Your task to perform on an android device: clear all cookies in the chrome app Image 0: 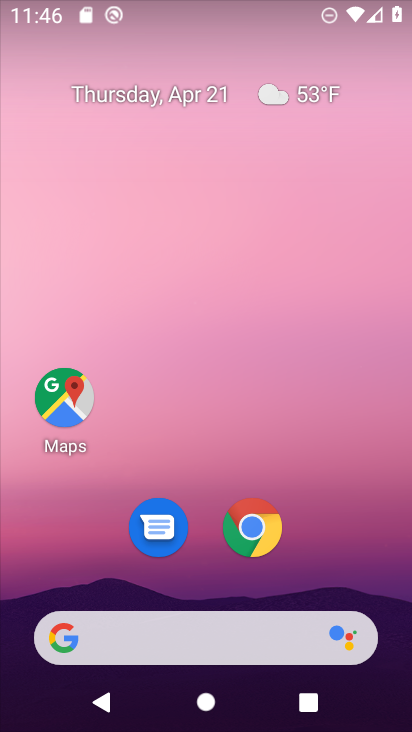
Step 0: drag from (352, 567) to (365, 253)
Your task to perform on an android device: clear all cookies in the chrome app Image 1: 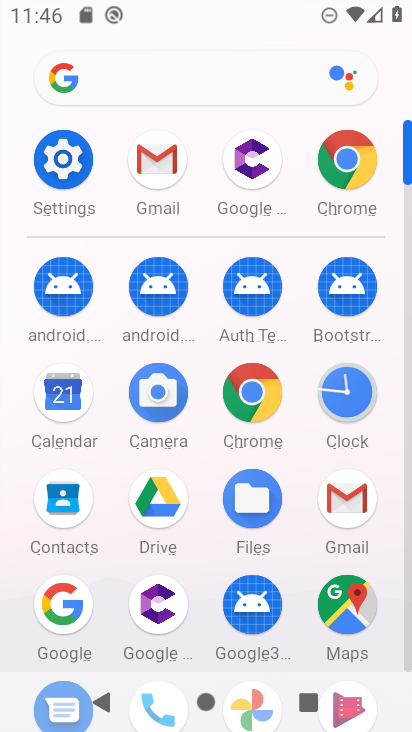
Step 1: click (339, 174)
Your task to perform on an android device: clear all cookies in the chrome app Image 2: 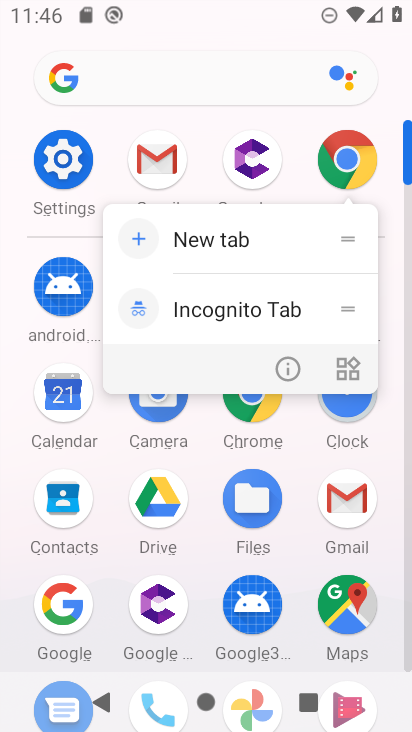
Step 2: click (341, 174)
Your task to perform on an android device: clear all cookies in the chrome app Image 3: 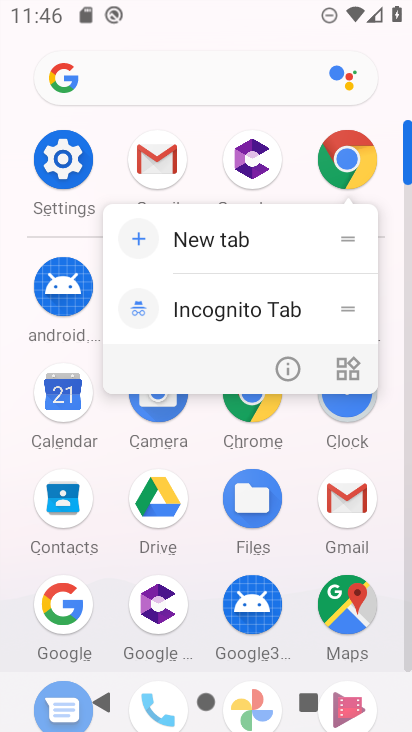
Step 3: click (340, 175)
Your task to perform on an android device: clear all cookies in the chrome app Image 4: 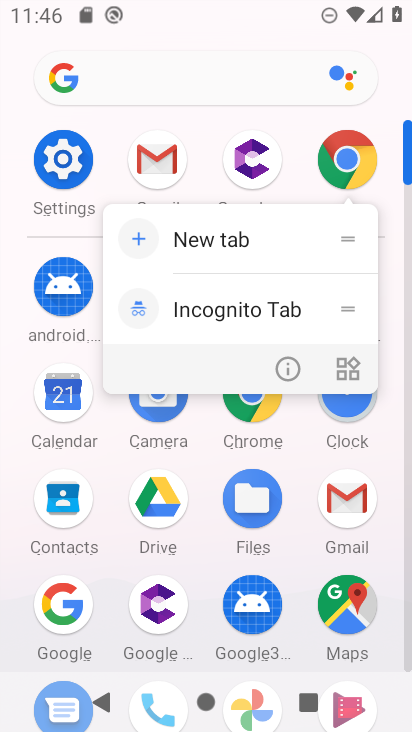
Step 4: click (357, 153)
Your task to perform on an android device: clear all cookies in the chrome app Image 5: 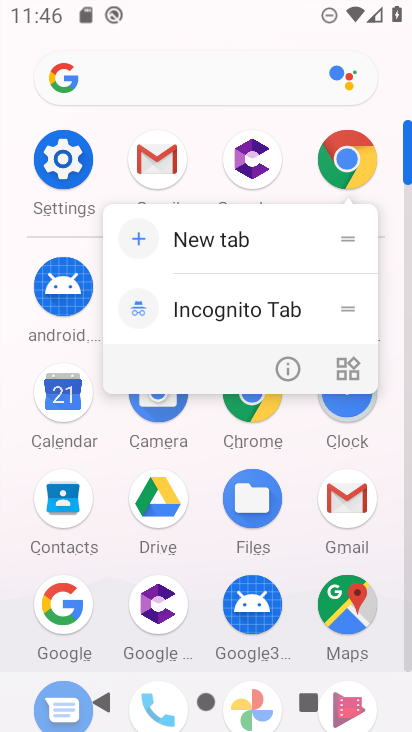
Step 5: click (351, 165)
Your task to perform on an android device: clear all cookies in the chrome app Image 6: 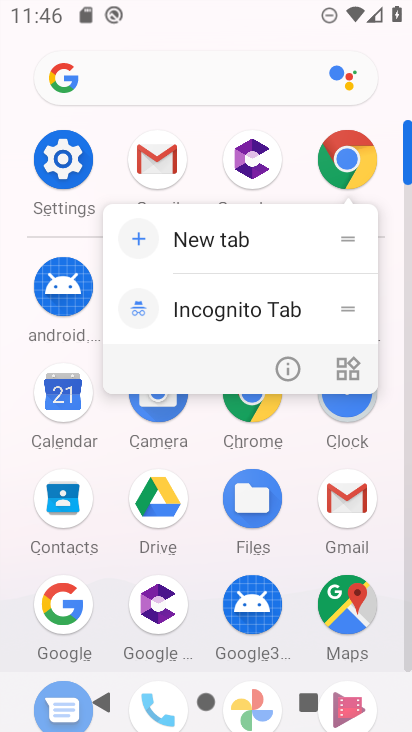
Step 6: click (345, 169)
Your task to perform on an android device: clear all cookies in the chrome app Image 7: 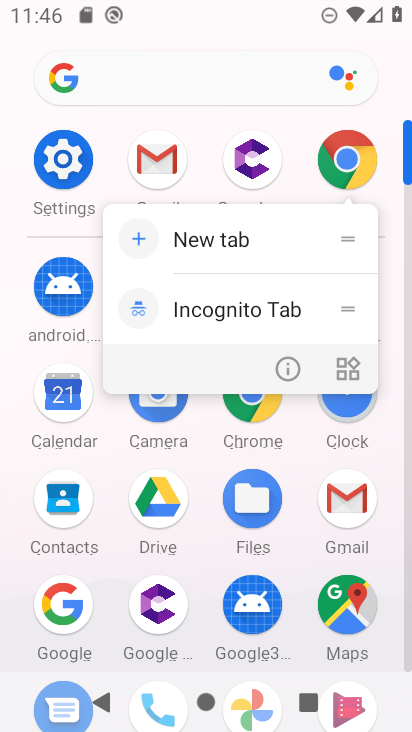
Step 7: click (312, 175)
Your task to perform on an android device: clear all cookies in the chrome app Image 8: 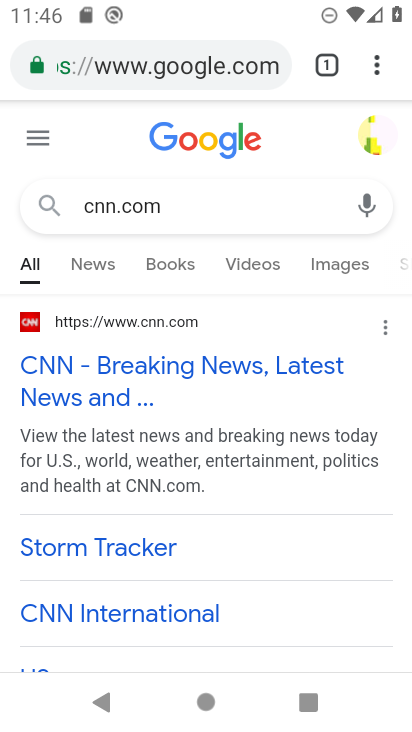
Step 8: click (376, 69)
Your task to perform on an android device: clear all cookies in the chrome app Image 9: 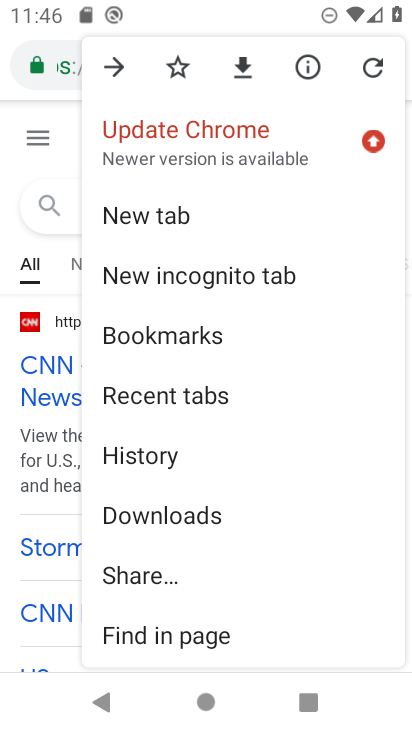
Step 9: drag from (320, 527) to (317, 394)
Your task to perform on an android device: clear all cookies in the chrome app Image 10: 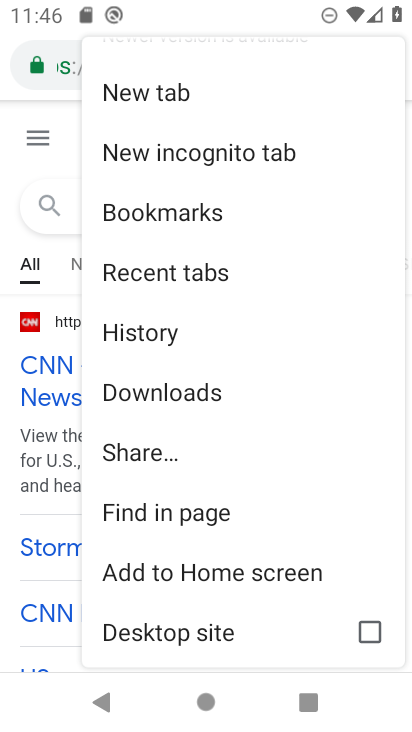
Step 10: drag from (313, 614) to (323, 452)
Your task to perform on an android device: clear all cookies in the chrome app Image 11: 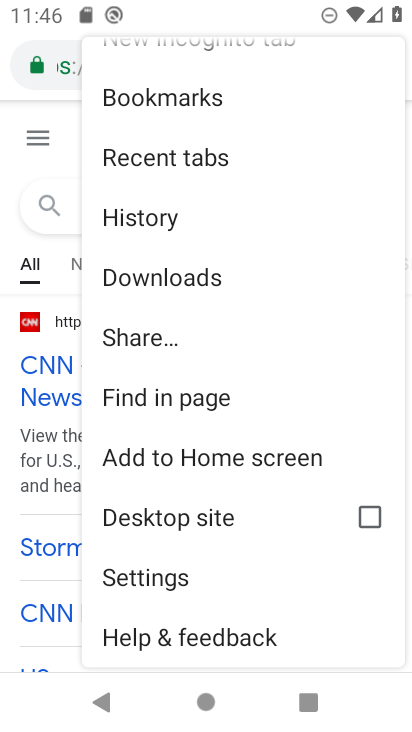
Step 11: click (202, 588)
Your task to perform on an android device: clear all cookies in the chrome app Image 12: 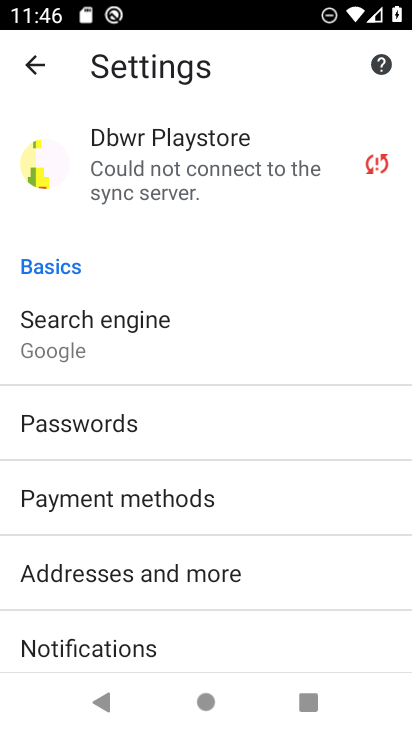
Step 12: drag from (287, 560) to (308, 423)
Your task to perform on an android device: clear all cookies in the chrome app Image 13: 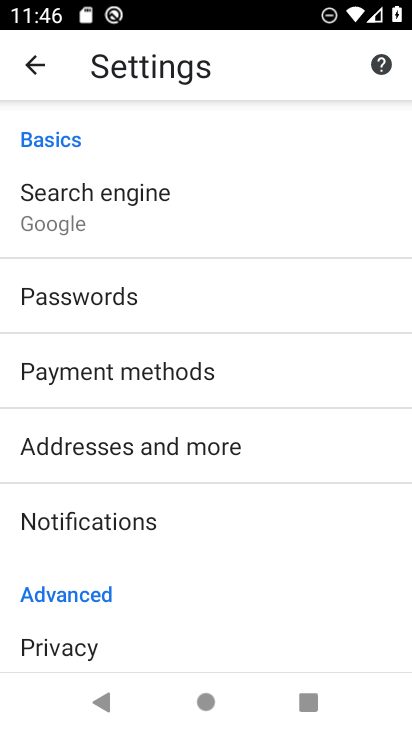
Step 13: drag from (288, 570) to (299, 458)
Your task to perform on an android device: clear all cookies in the chrome app Image 14: 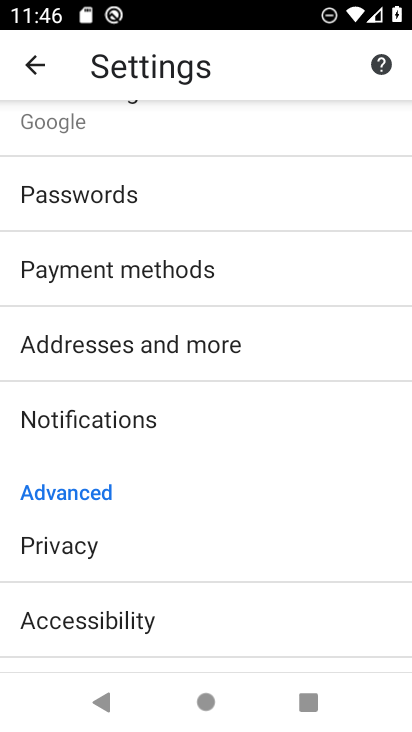
Step 14: drag from (291, 595) to (291, 466)
Your task to perform on an android device: clear all cookies in the chrome app Image 15: 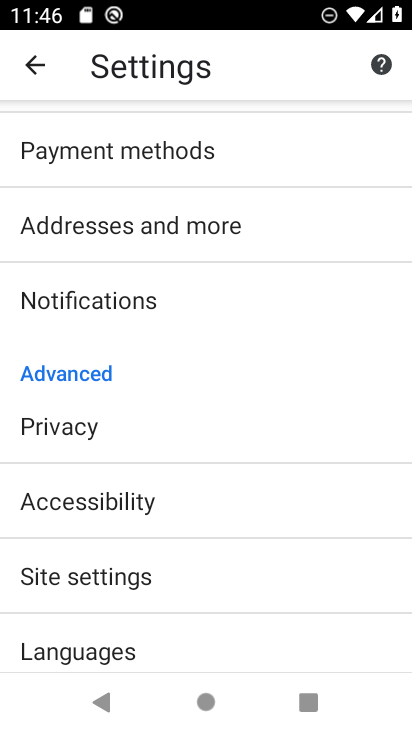
Step 15: drag from (283, 582) to (289, 457)
Your task to perform on an android device: clear all cookies in the chrome app Image 16: 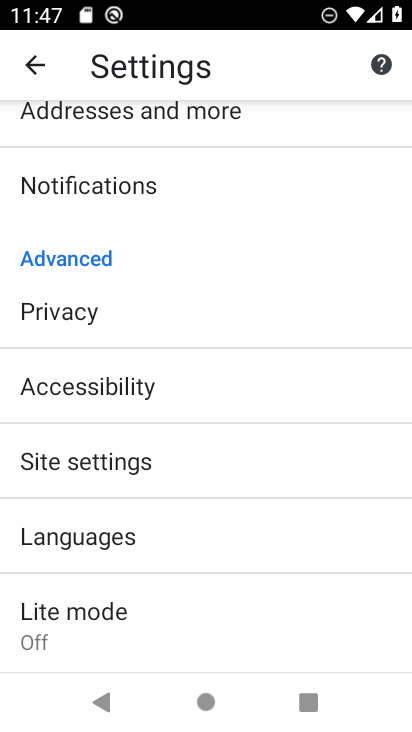
Step 16: drag from (250, 580) to (251, 439)
Your task to perform on an android device: clear all cookies in the chrome app Image 17: 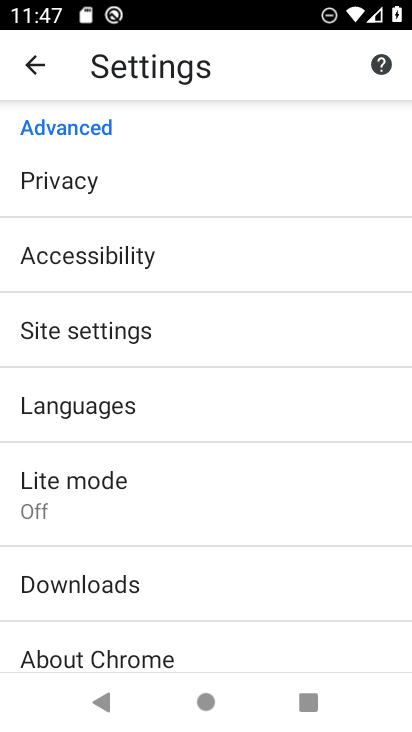
Step 17: drag from (269, 529) to (279, 412)
Your task to perform on an android device: clear all cookies in the chrome app Image 18: 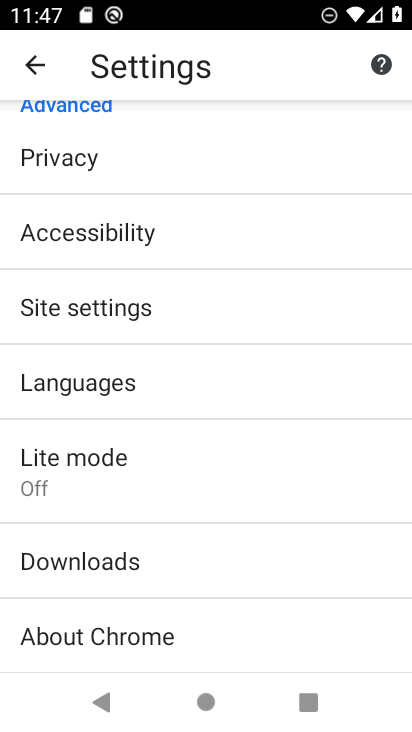
Step 18: click (131, 163)
Your task to perform on an android device: clear all cookies in the chrome app Image 19: 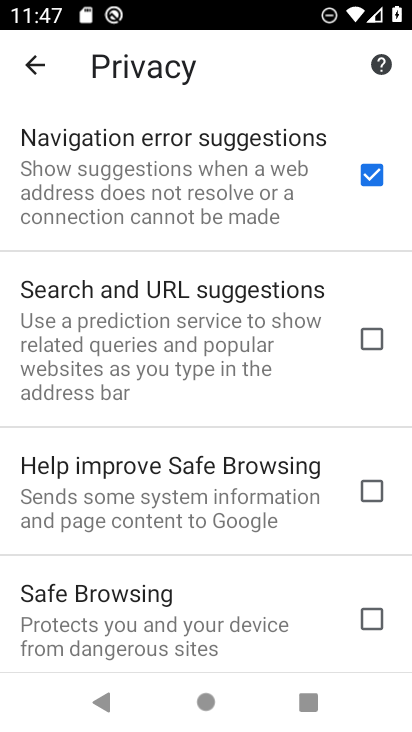
Step 19: drag from (302, 542) to (331, 388)
Your task to perform on an android device: clear all cookies in the chrome app Image 20: 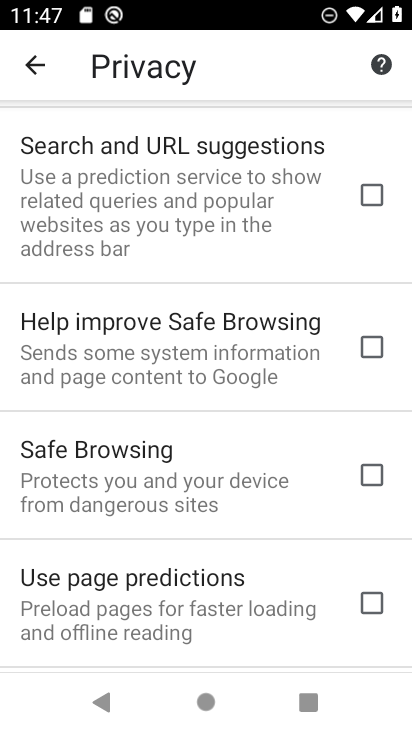
Step 20: drag from (302, 541) to (292, 432)
Your task to perform on an android device: clear all cookies in the chrome app Image 21: 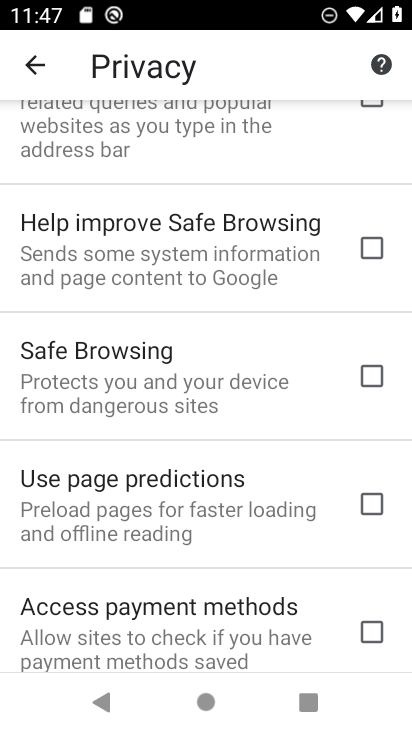
Step 21: drag from (344, 563) to (311, 442)
Your task to perform on an android device: clear all cookies in the chrome app Image 22: 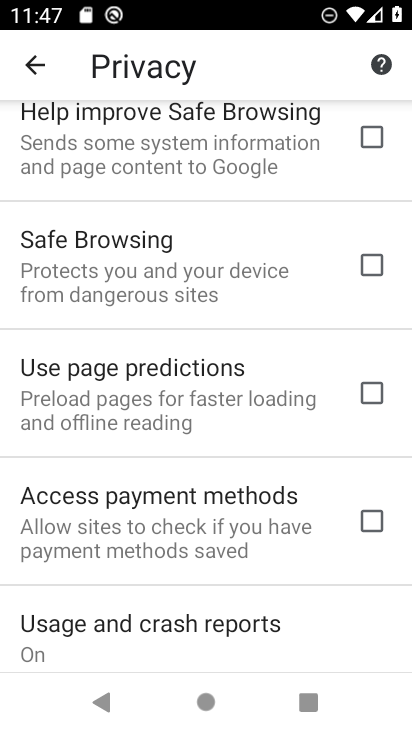
Step 22: drag from (299, 623) to (307, 492)
Your task to perform on an android device: clear all cookies in the chrome app Image 23: 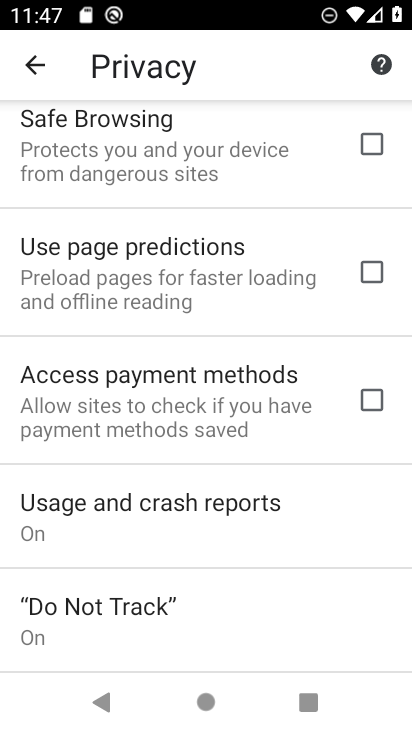
Step 23: drag from (300, 571) to (302, 480)
Your task to perform on an android device: clear all cookies in the chrome app Image 24: 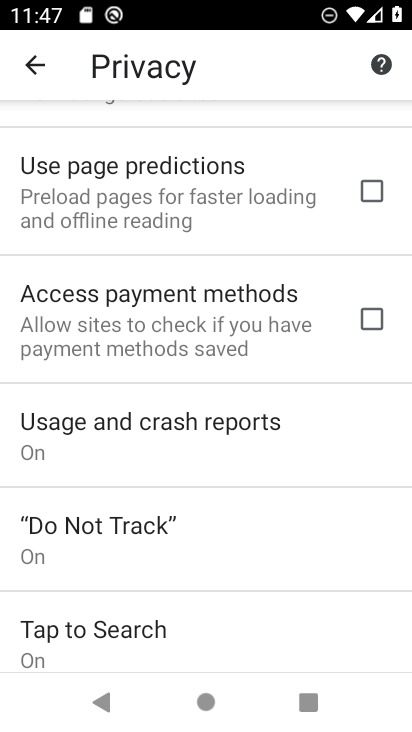
Step 24: drag from (285, 605) to (285, 417)
Your task to perform on an android device: clear all cookies in the chrome app Image 25: 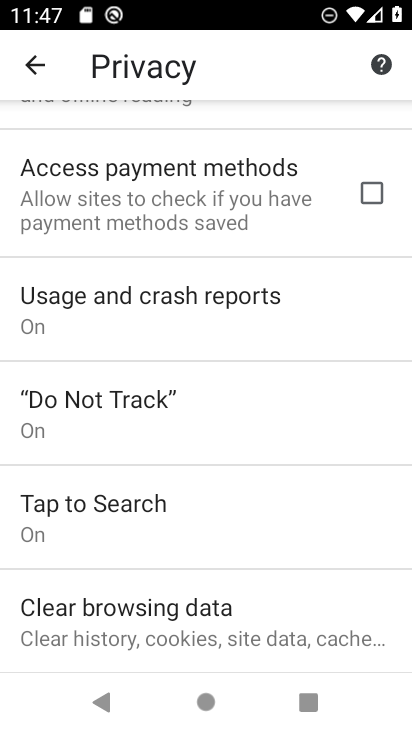
Step 25: click (238, 635)
Your task to perform on an android device: clear all cookies in the chrome app Image 26: 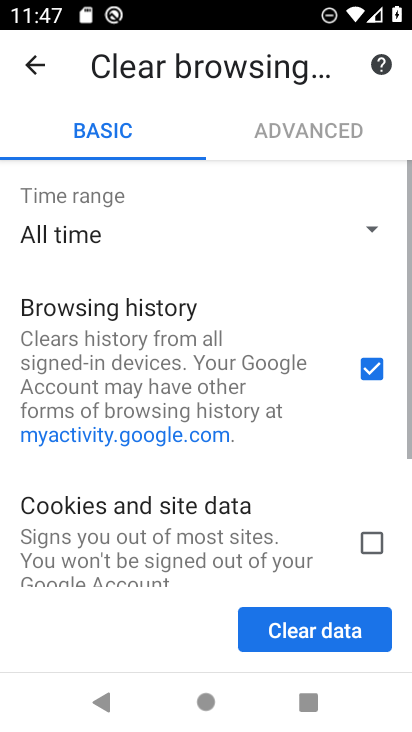
Step 26: click (378, 547)
Your task to perform on an android device: clear all cookies in the chrome app Image 27: 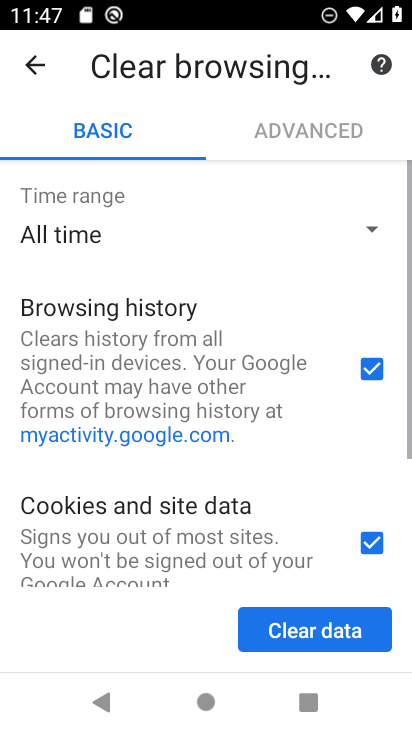
Step 27: click (360, 633)
Your task to perform on an android device: clear all cookies in the chrome app Image 28: 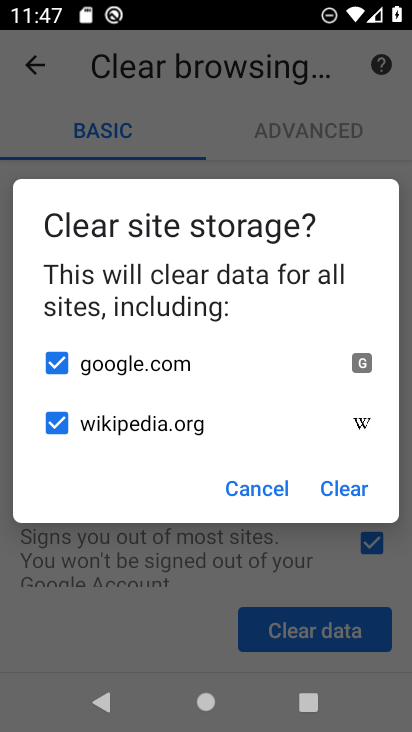
Step 28: click (351, 485)
Your task to perform on an android device: clear all cookies in the chrome app Image 29: 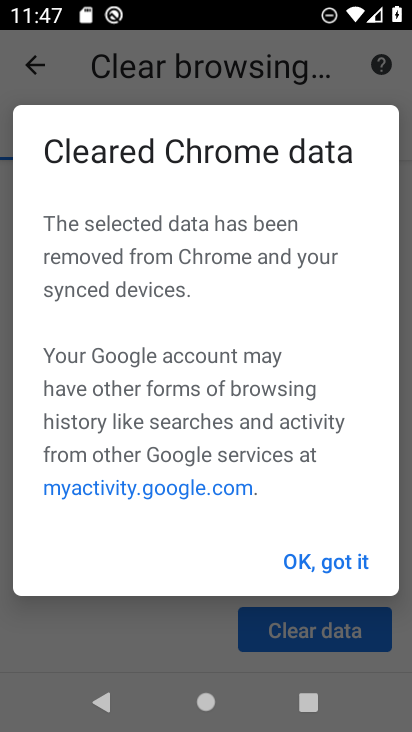
Step 29: click (334, 564)
Your task to perform on an android device: clear all cookies in the chrome app Image 30: 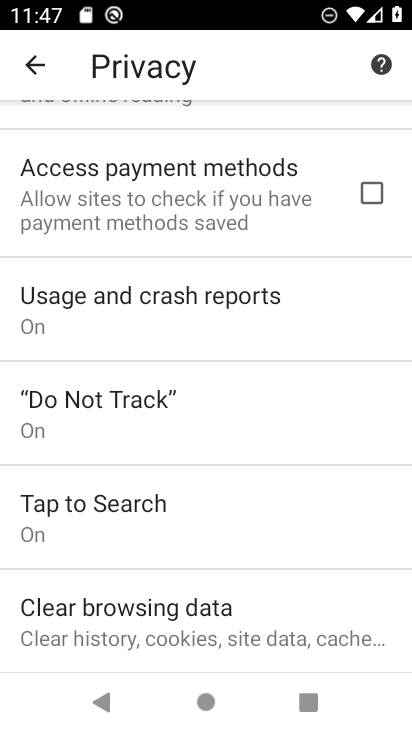
Step 30: task complete